Your task to perform on an android device: Go to CNN.com Image 0: 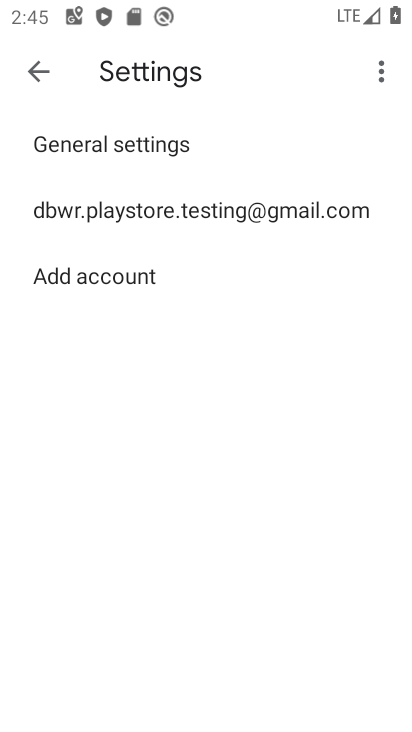
Step 0: press home button
Your task to perform on an android device: Go to CNN.com Image 1: 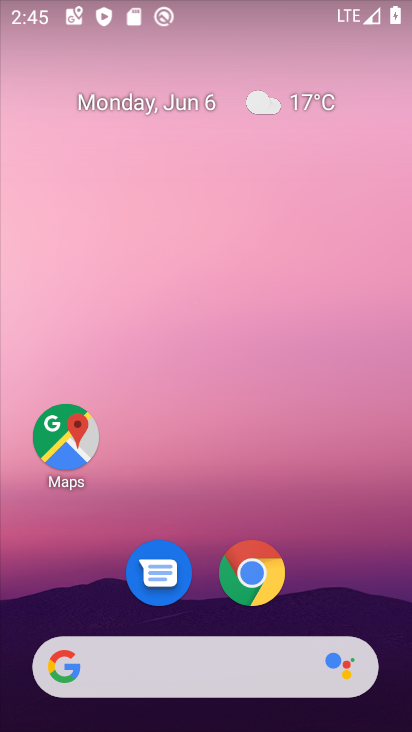
Step 1: drag from (367, 560) to (376, 154)
Your task to perform on an android device: Go to CNN.com Image 2: 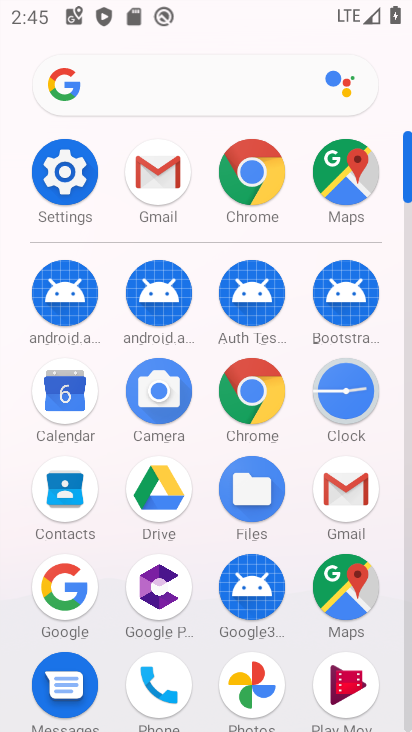
Step 2: click (270, 397)
Your task to perform on an android device: Go to CNN.com Image 3: 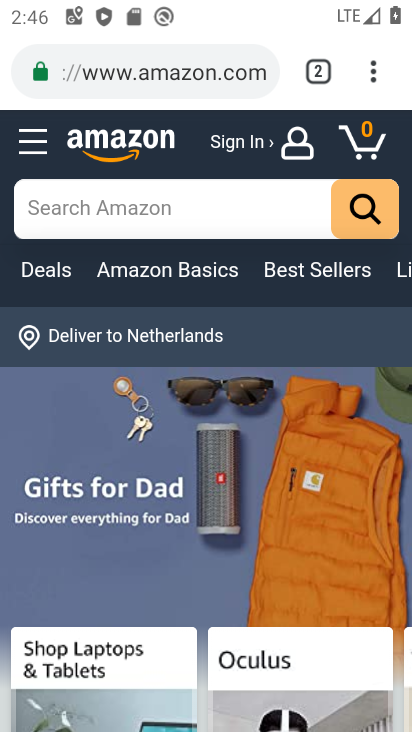
Step 3: click (226, 82)
Your task to perform on an android device: Go to CNN.com Image 4: 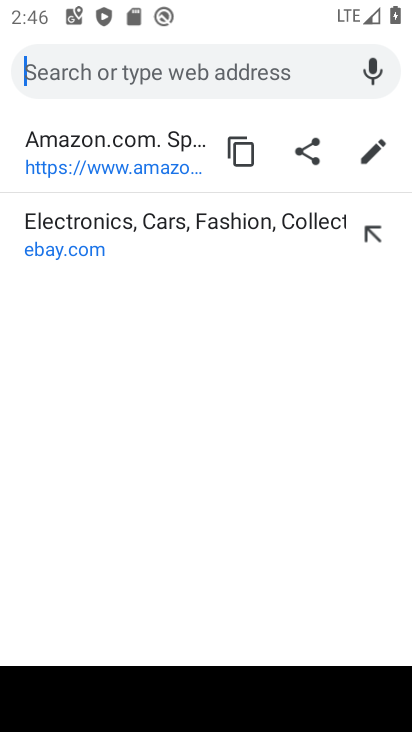
Step 4: type "cnn.com"
Your task to perform on an android device: Go to CNN.com Image 5: 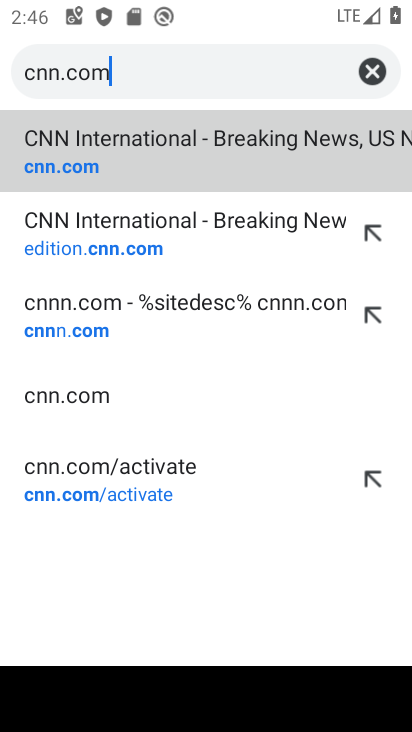
Step 5: click (115, 139)
Your task to perform on an android device: Go to CNN.com Image 6: 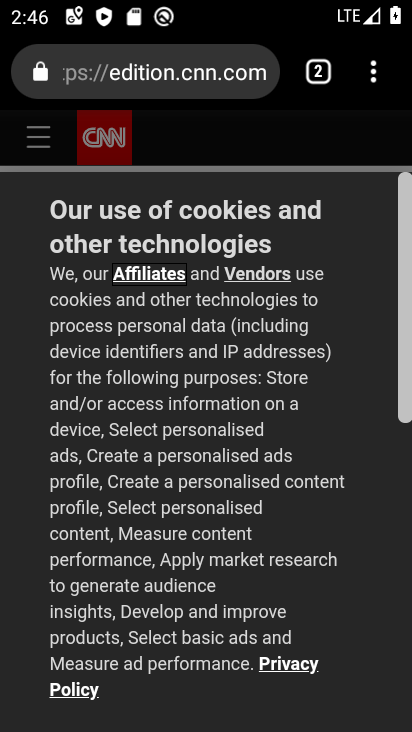
Step 6: task complete